Your task to perform on an android device: Open display settings Image 0: 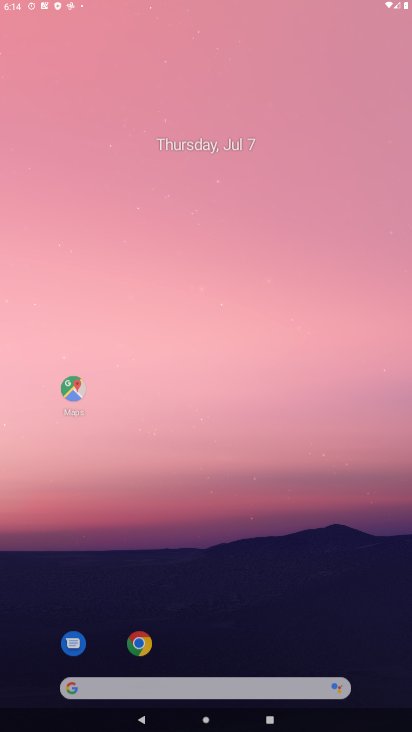
Step 0: drag from (364, 679) to (298, 139)
Your task to perform on an android device: Open display settings Image 1: 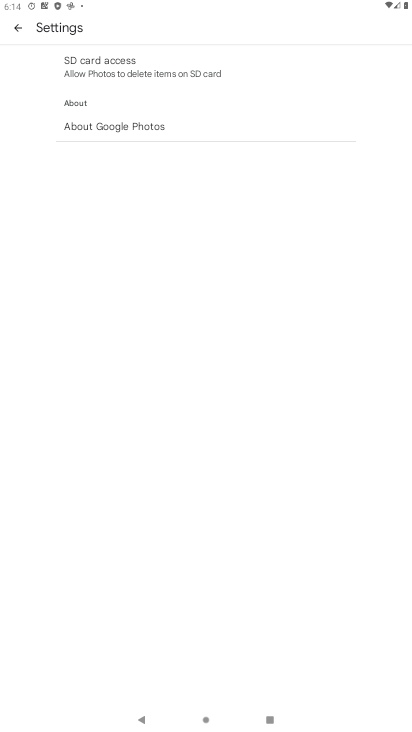
Step 1: press home button
Your task to perform on an android device: Open display settings Image 2: 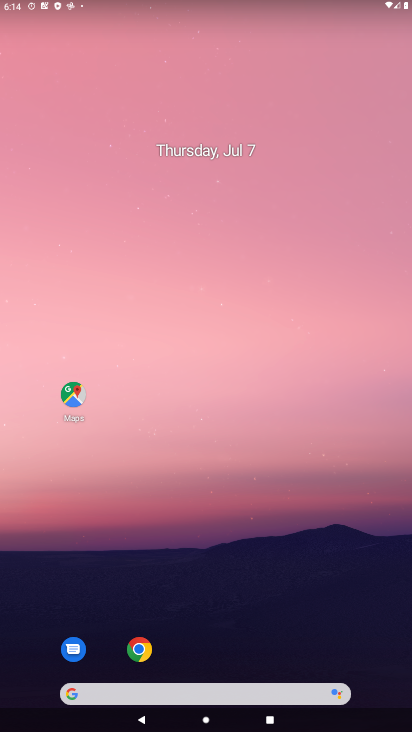
Step 2: drag from (382, 691) to (309, 77)
Your task to perform on an android device: Open display settings Image 3: 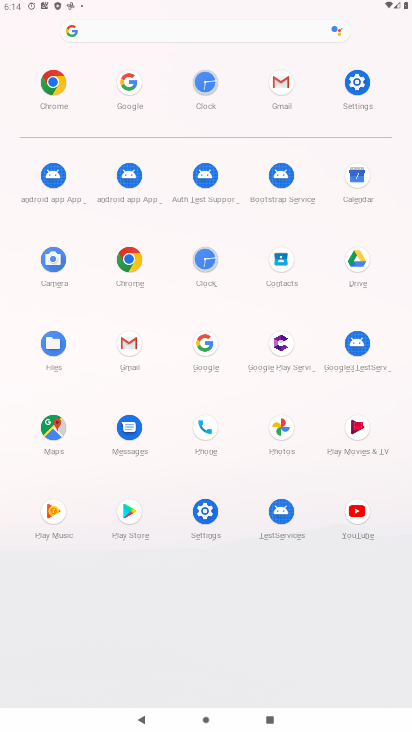
Step 3: click (214, 511)
Your task to perform on an android device: Open display settings Image 4: 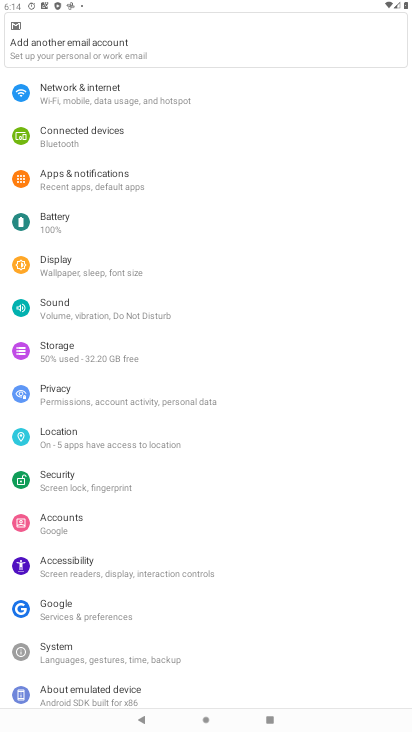
Step 4: click (89, 274)
Your task to perform on an android device: Open display settings Image 5: 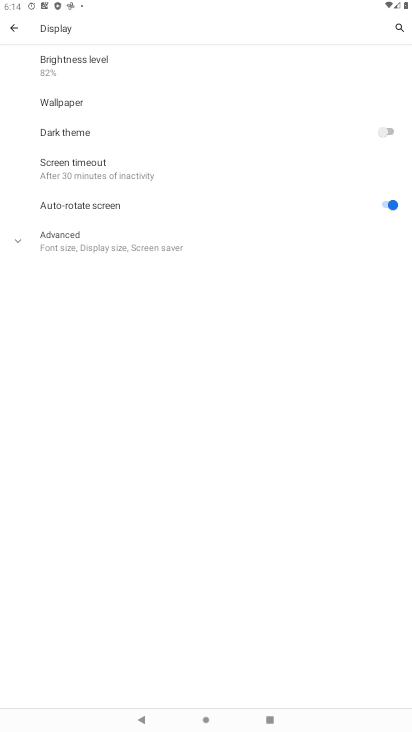
Step 5: task complete